Your task to perform on an android device: change the clock display to digital Image 0: 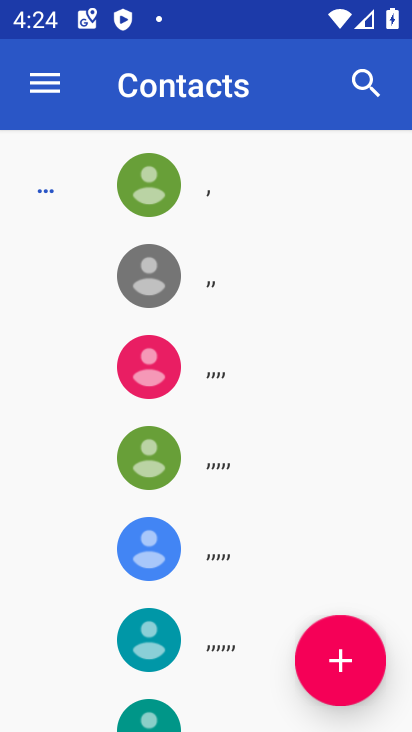
Step 0: press home button
Your task to perform on an android device: change the clock display to digital Image 1: 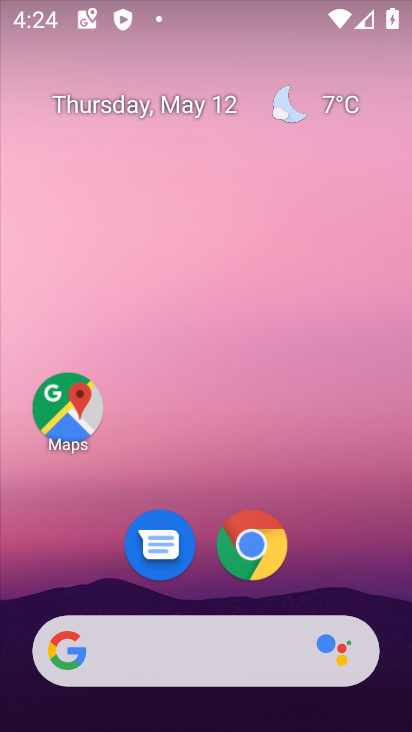
Step 1: drag from (337, 536) to (266, 163)
Your task to perform on an android device: change the clock display to digital Image 2: 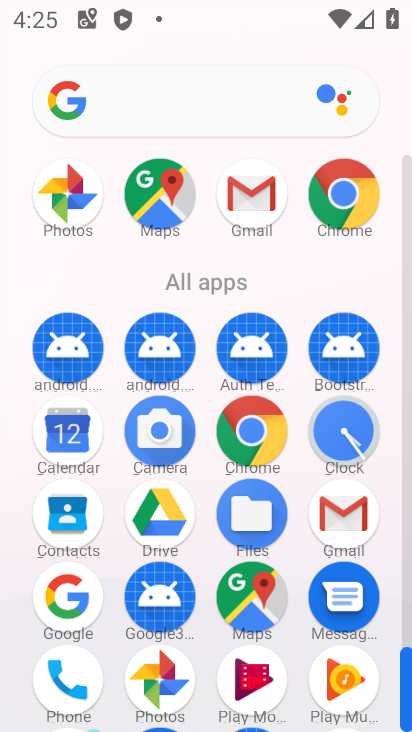
Step 2: click (338, 445)
Your task to perform on an android device: change the clock display to digital Image 3: 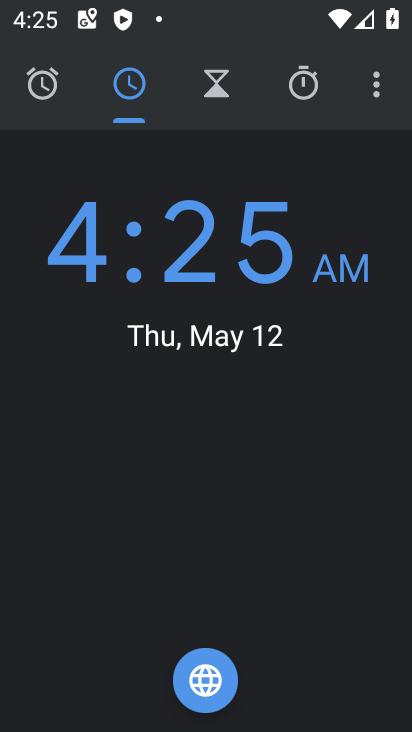
Step 3: click (372, 93)
Your task to perform on an android device: change the clock display to digital Image 4: 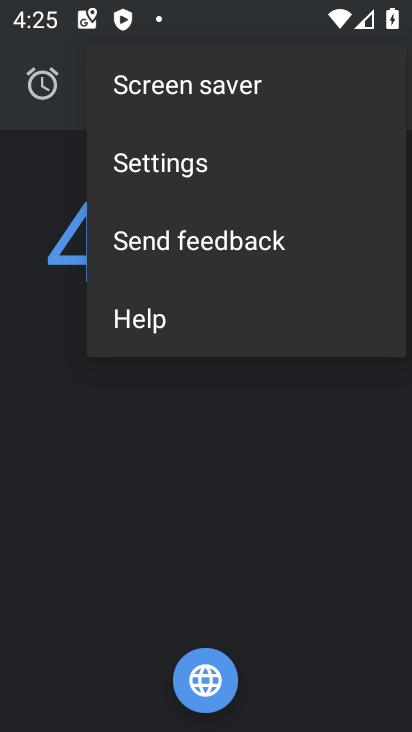
Step 4: click (188, 178)
Your task to perform on an android device: change the clock display to digital Image 5: 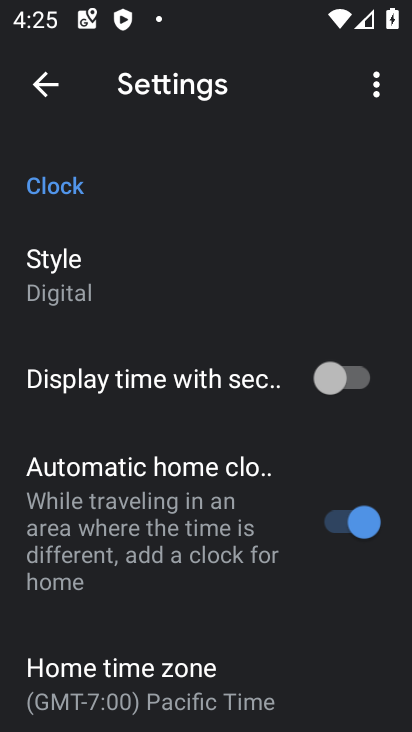
Step 5: click (91, 269)
Your task to perform on an android device: change the clock display to digital Image 6: 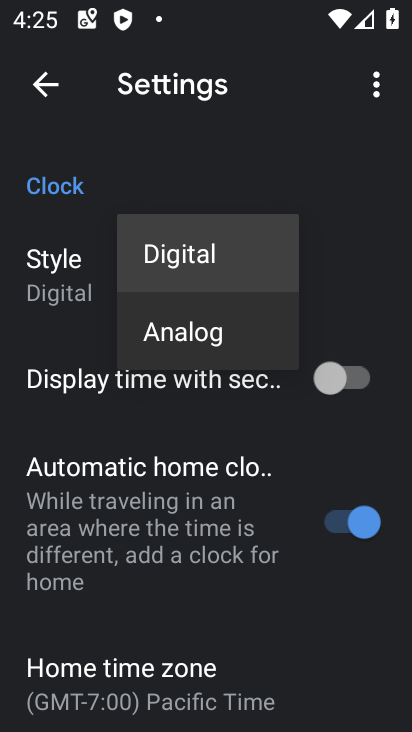
Step 6: task complete